Your task to perform on an android device: toggle improve location accuracy Image 0: 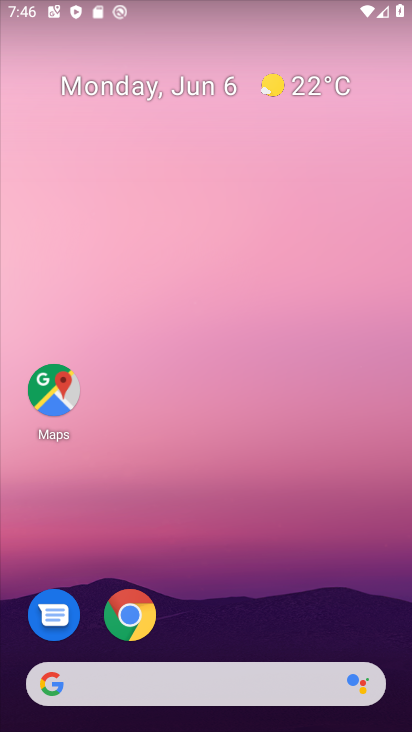
Step 0: drag from (393, 700) to (391, 9)
Your task to perform on an android device: toggle improve location accuracy Image 1: 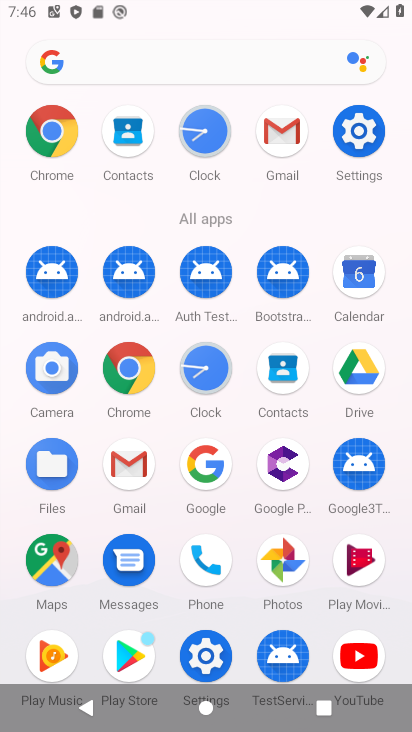
Step 1: click (347, 138)
Your task to perform on an android device: toggle improve location accuracy Image 2: 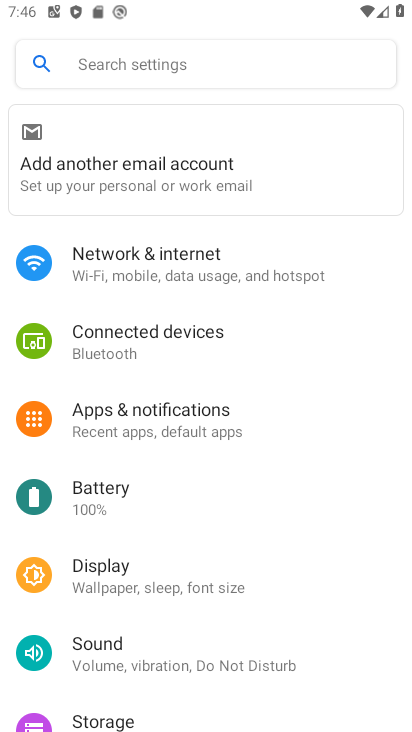
Step 2: drag from (292, 710) to (300, 228)
Your task to perform on an android device: toggle improve location accuracy Image 3: 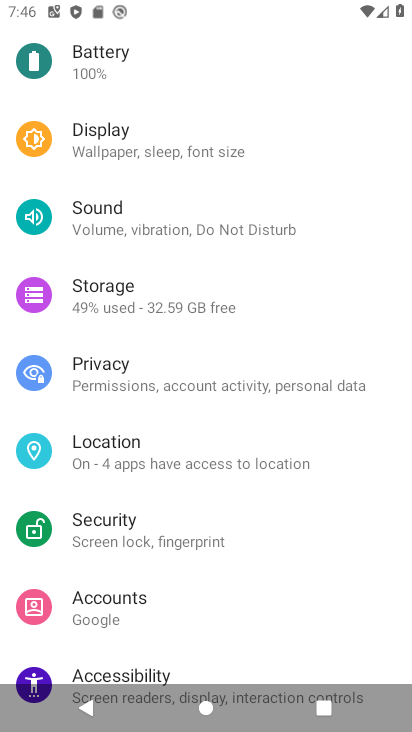
Step 3: click (101, 451)
Your task to perform on an android device: toggle improve location accuracy Image 4: 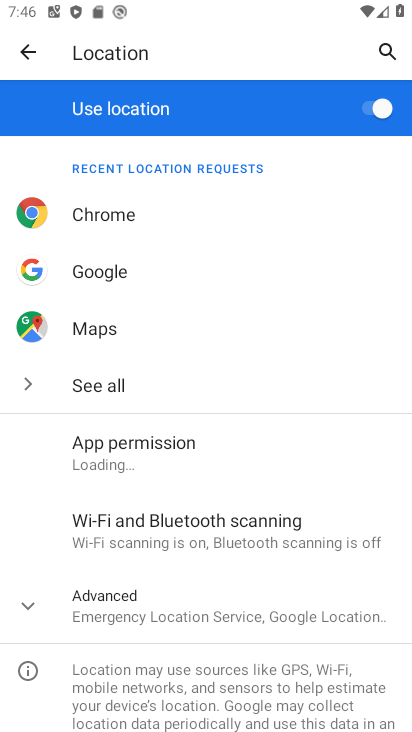
Step 4: click (91, 607)
Your task to perform on an android device: toggle improve location accuracy Image 5: 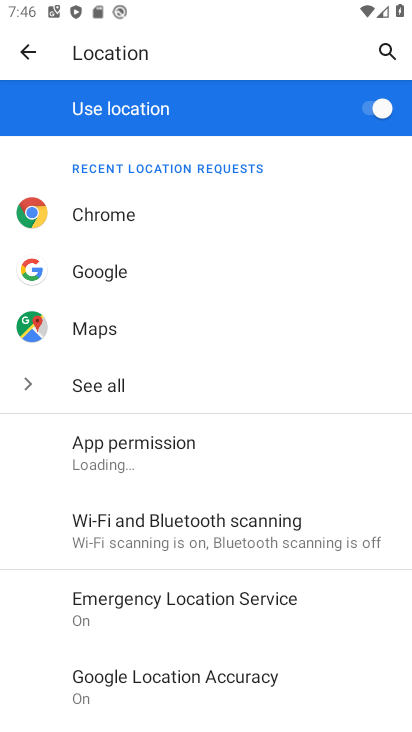
Step 5: drag from (299, 693) to (302, 441)
Your task to perform on an android device: toggle improve location accuracy Image 6: 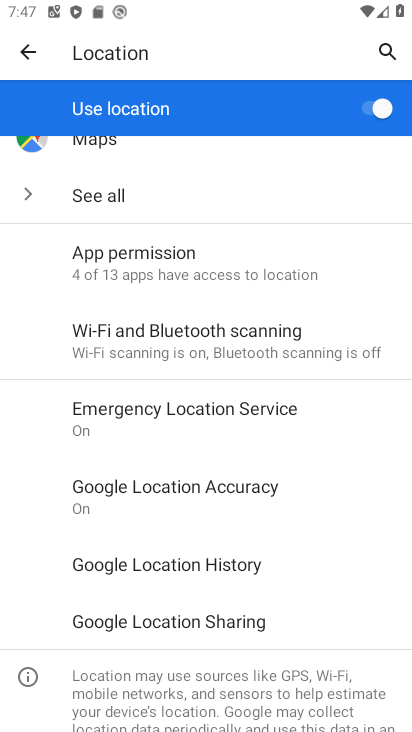
Step 6: click (149, 485)
Your task to perform on an android device: toggle improve location accuracy Image 7: 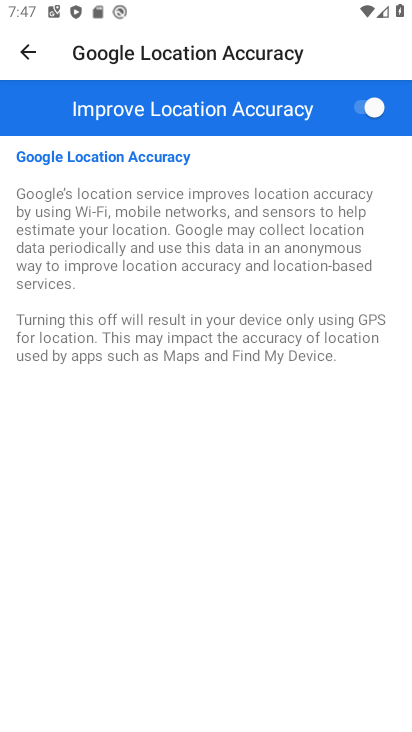
Step 7: click (363, 106)
Your task to perform on an android device: toggle improve location accuracy Image 8: 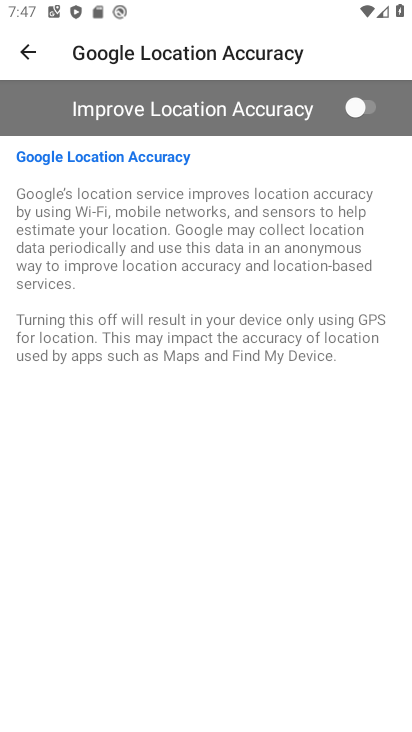
Step 8: task complete